Your task to perform on an android device: Open calendar and show me the second week of next month Image 0: 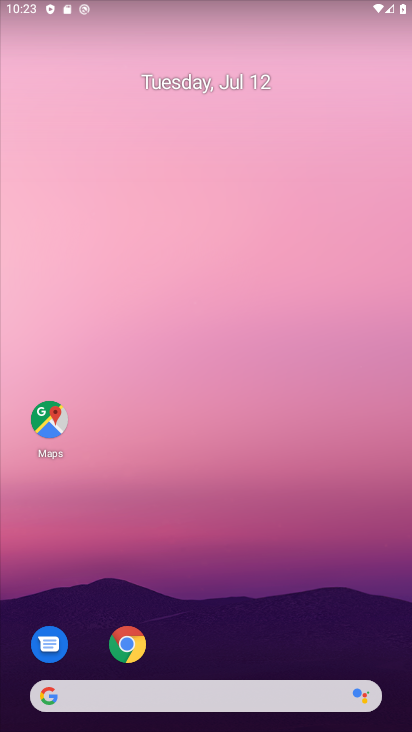
Step 0: drag from (262, 670) to (219, 316)
Your task to perform on an android device: Open calendar and show me the second week of next month Image 1: 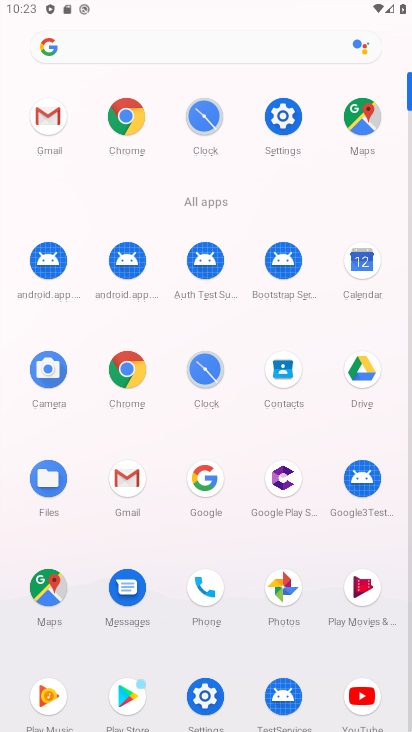
Step 1: click (355, 263)
Your task to perform on an android device: Open calendar and show me the second week of next month Image 2: 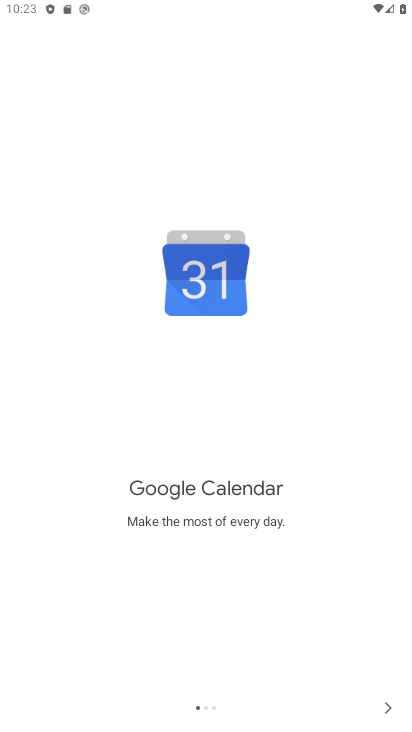
Step 2: click (381, 709)
Your task to perform on an android device: Open calendar and show me the second week of next month Image 3: 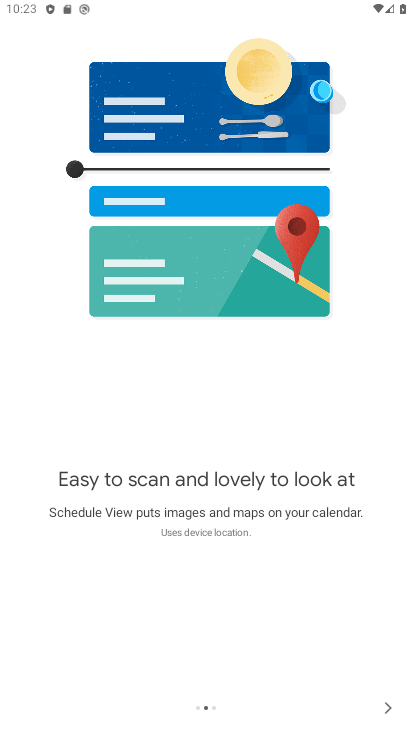
Step 3: click (382, 705)
Your task to perform on an android device: Open calendar and show me the second week of next month Image 4: 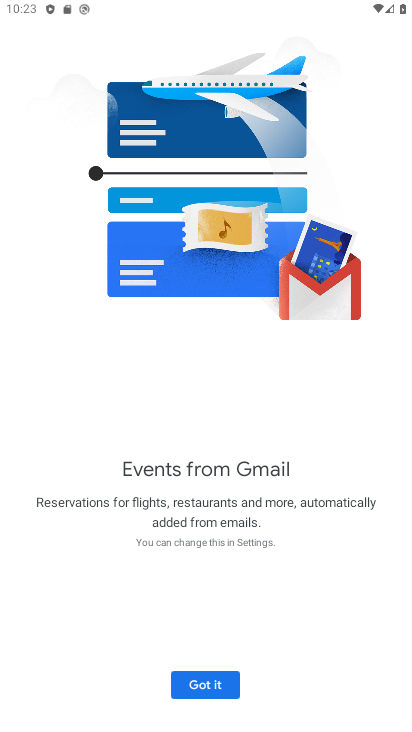
Step 4: click (223, 690)
Your task to perform on an android device: Open calendar and show me the second week of next month Image 5: 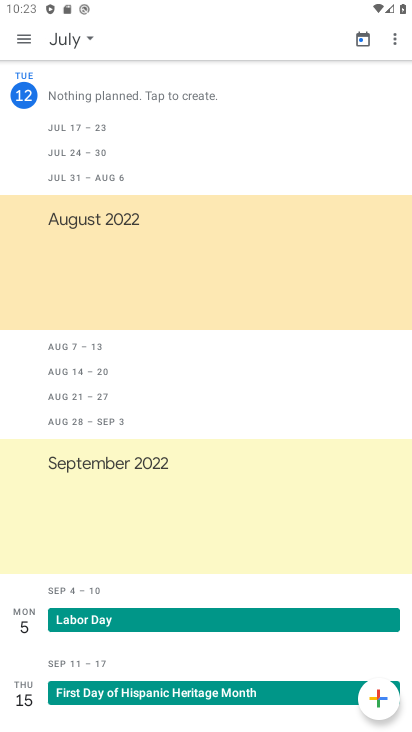
Step 5: click (69, 35)
Your task to perform on an android device: Open calendar and show me the second week of next month Image 6: 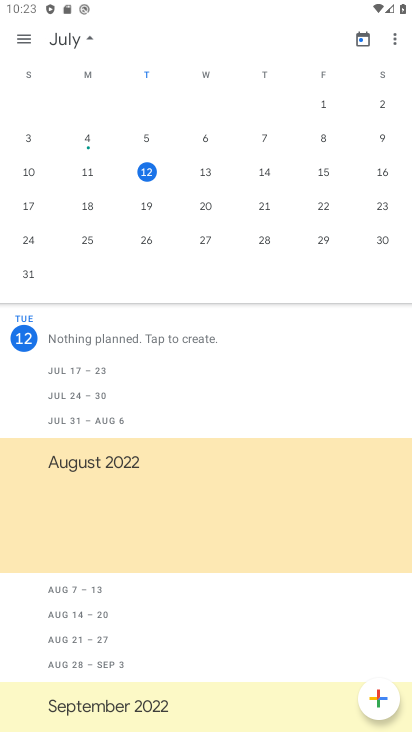
Step 6: drag from (350, 225) to (7, 222)
Your task to perform on an android device: Open calendar and show me the second week of next month Image 7: 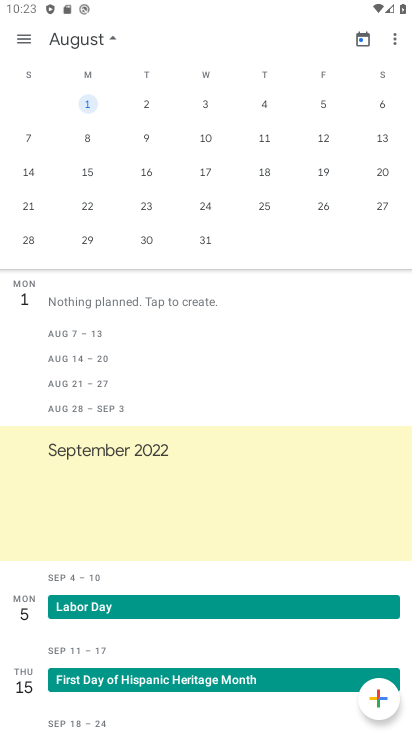
Step 7: click (24, 132)
Your task to perform on an android device: Open calendar and show me the second week of next month Image 8: 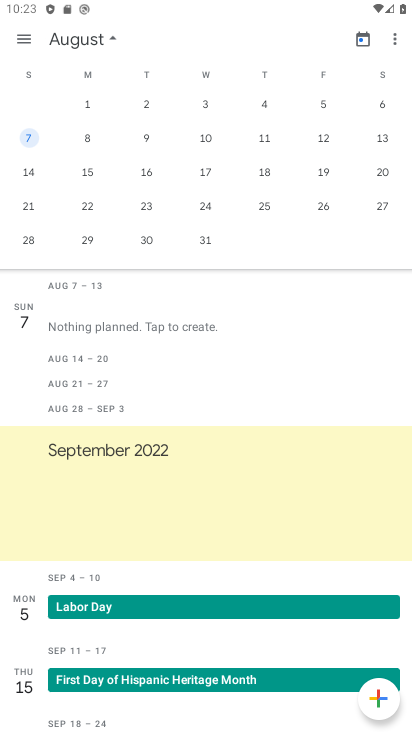
Step 8: task complete